Your task to perform on an android device: change your default location settings in chrome Image 0: 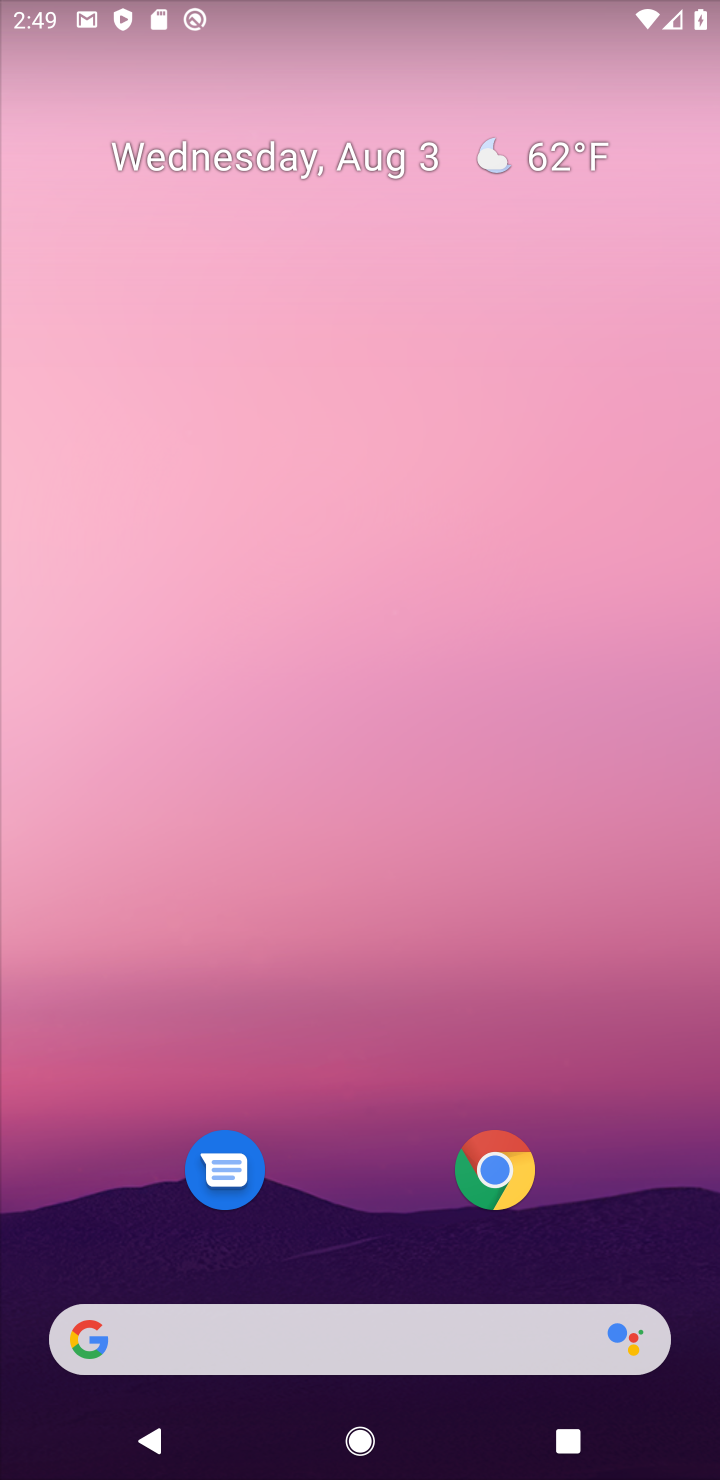
Step 0: click (483, 1174)
Your task to perform on an android device: change your default location settings in chrome Image 1: 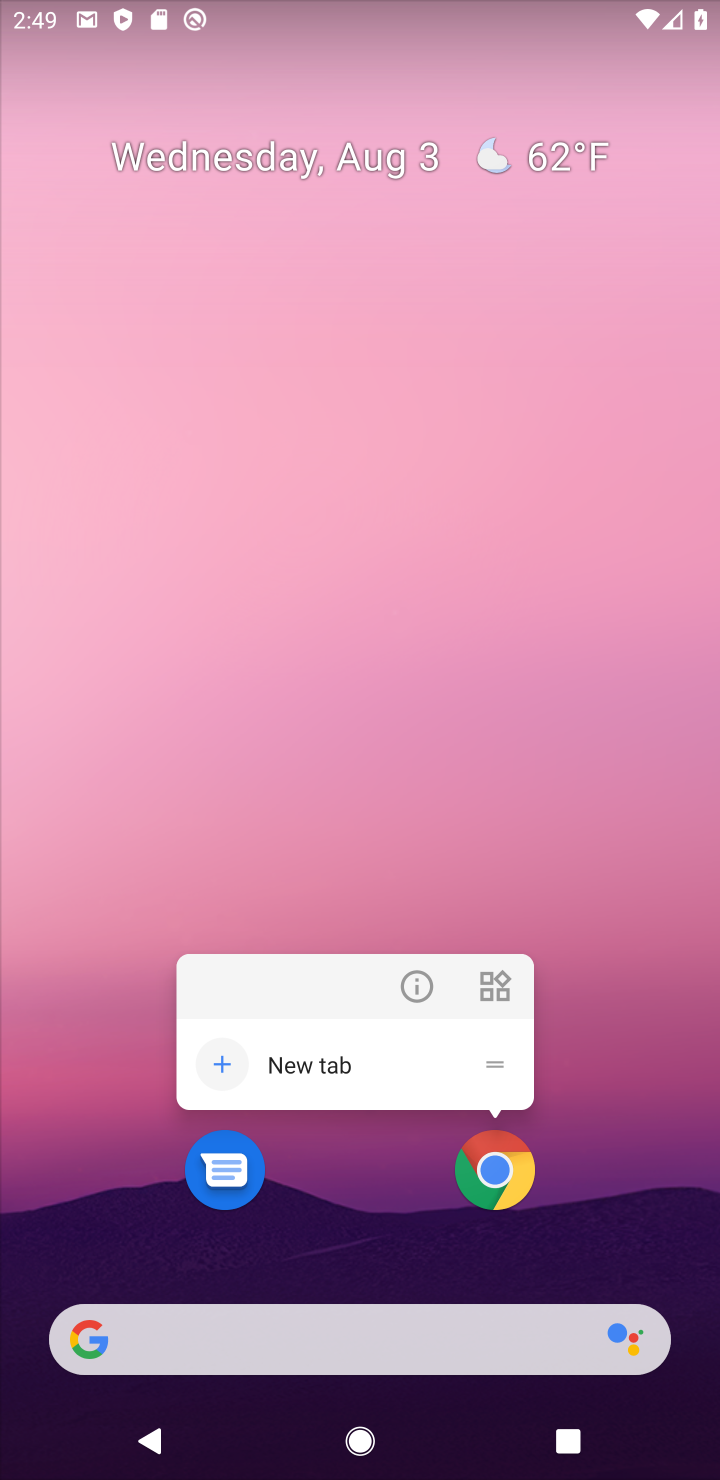
Step 1: click (483, 1174)
Your task to perform on an android device: change your default location settings in chrome Image 2: 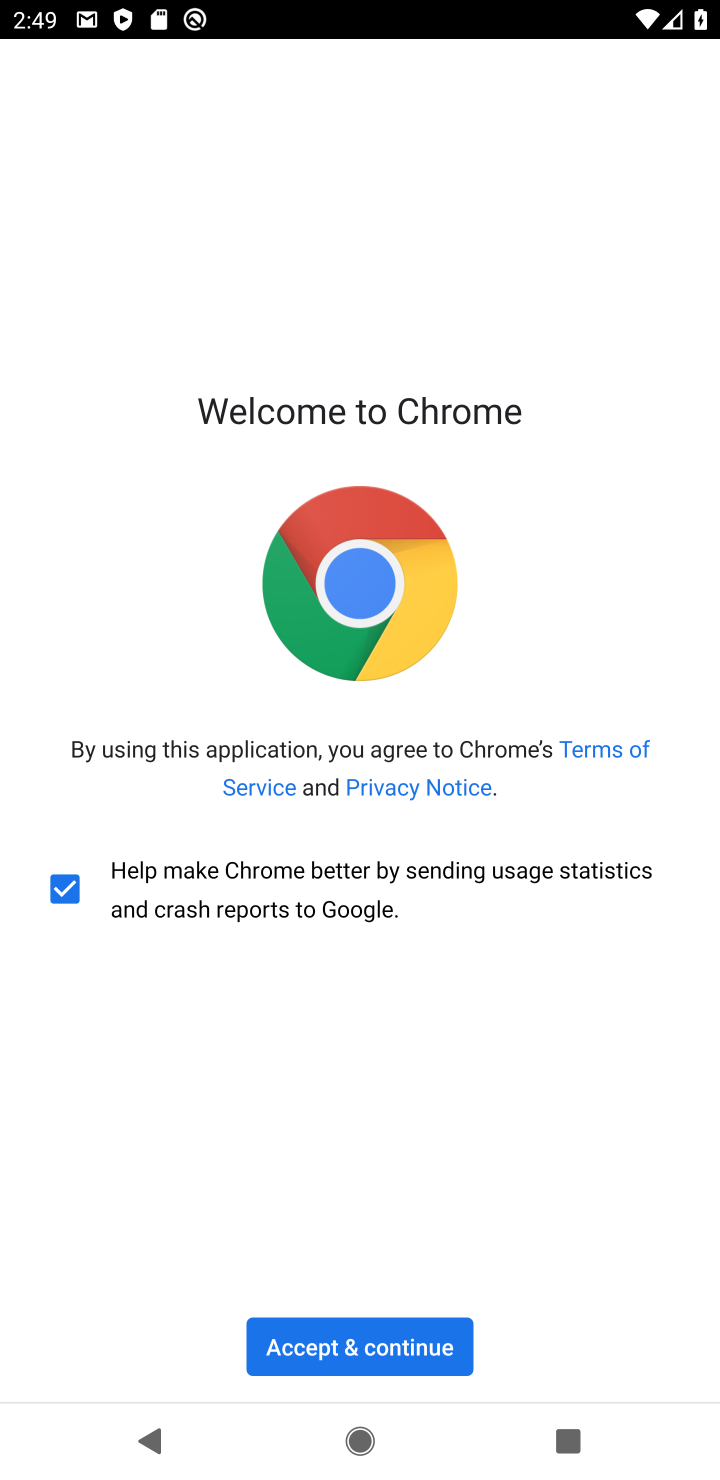
Step 2: click (327, 1359)
Your task to perform on an android device: change your default location settings in chrome Image 3: 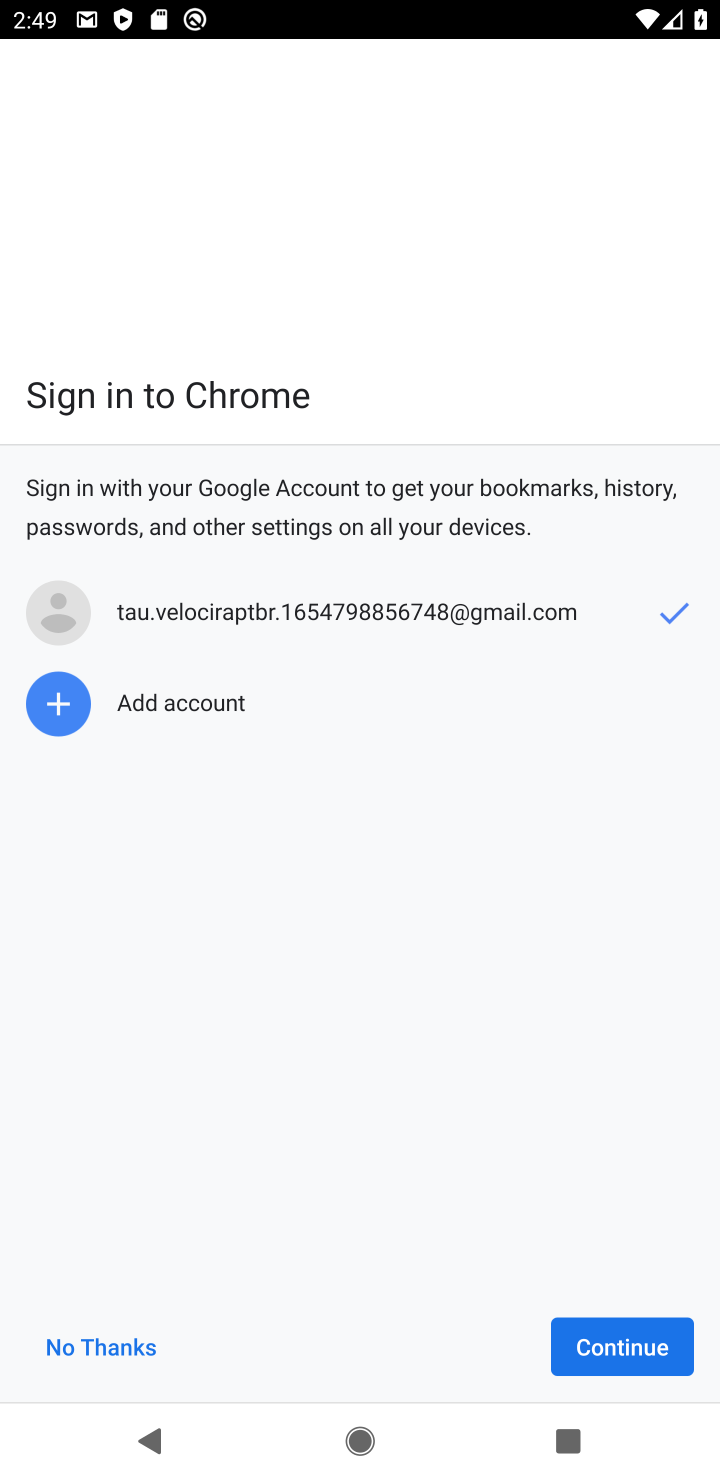
Step 3: click (601, 1357)
Your task to perform on an android device: change your default location settings in chrome Image 4: 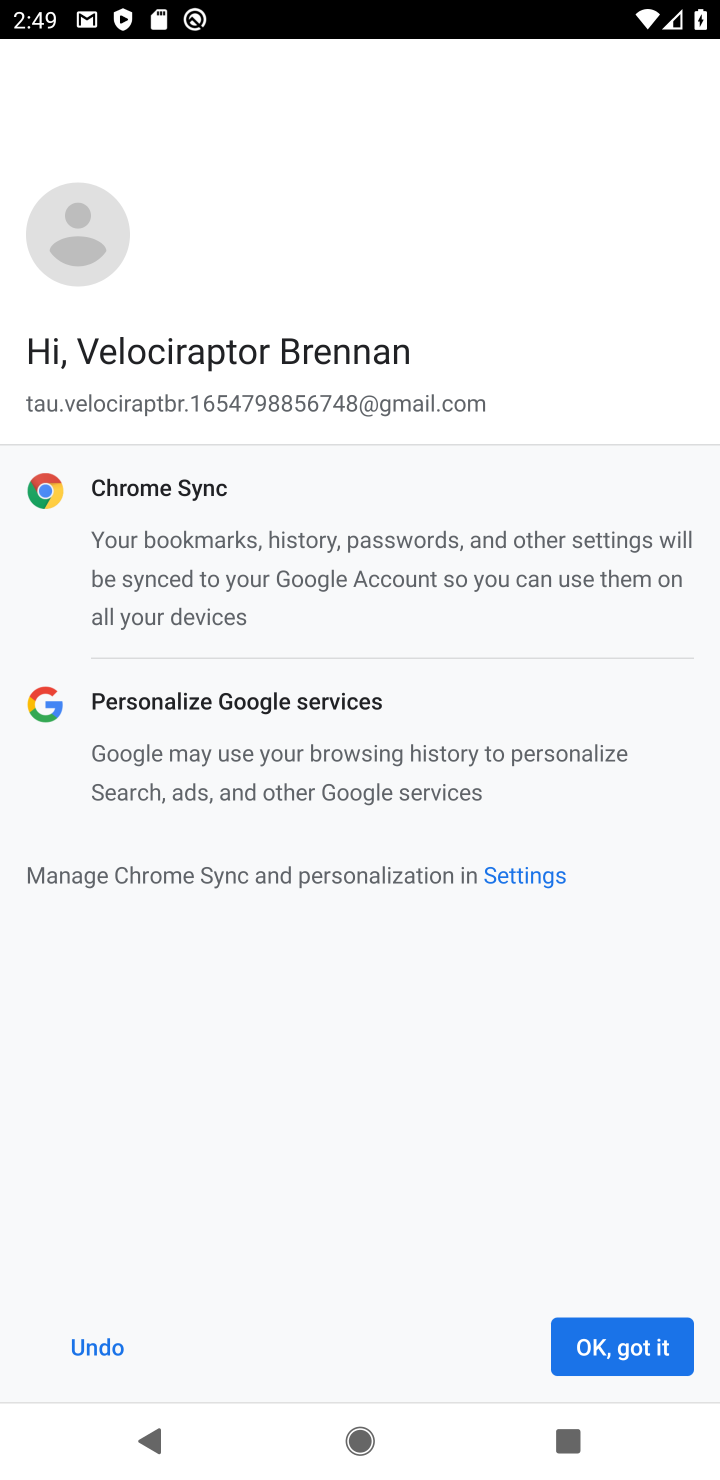
Step 4: click (601, 1357)
Your task to perform on an android device: change your default location settings in chrome Image 5: 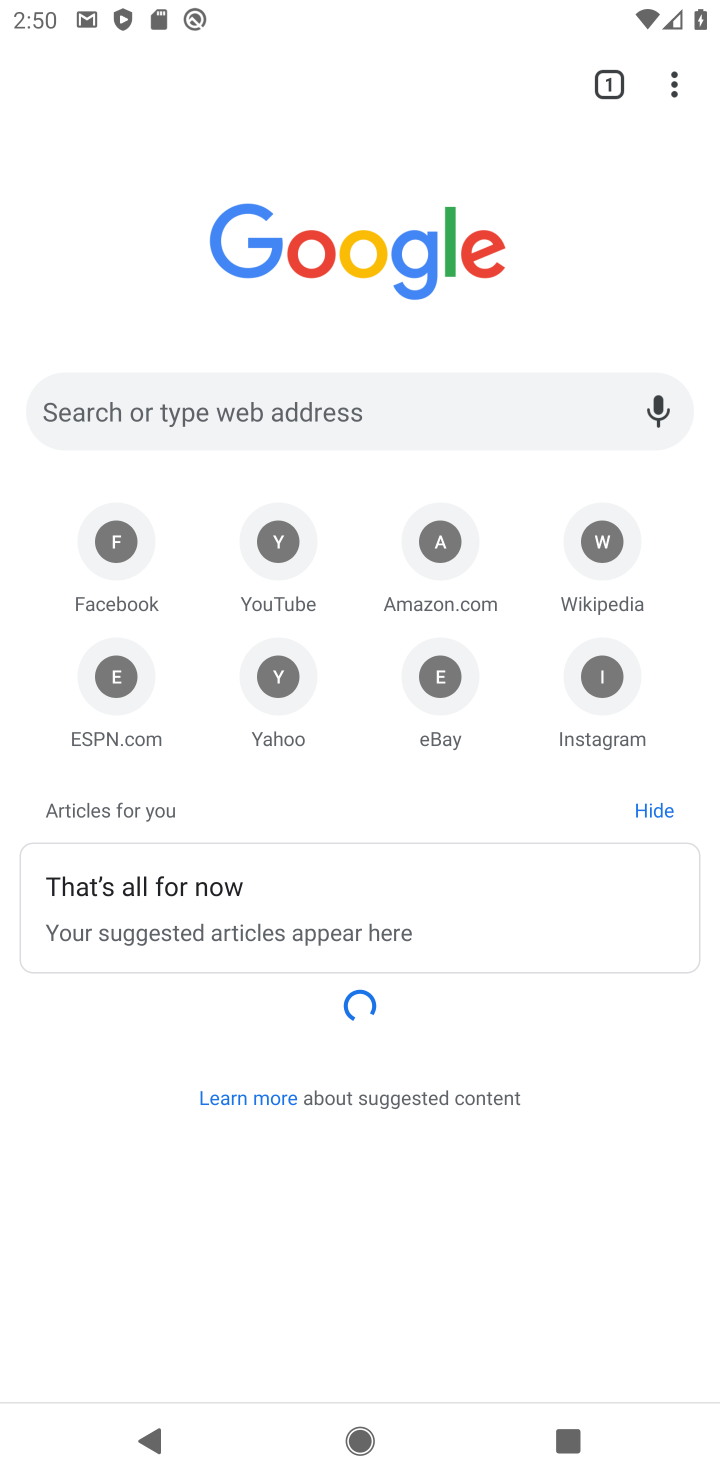
Step 5: click (670, 92)
Your task to perform on an android device: change your default location settings in chrome Image 6: 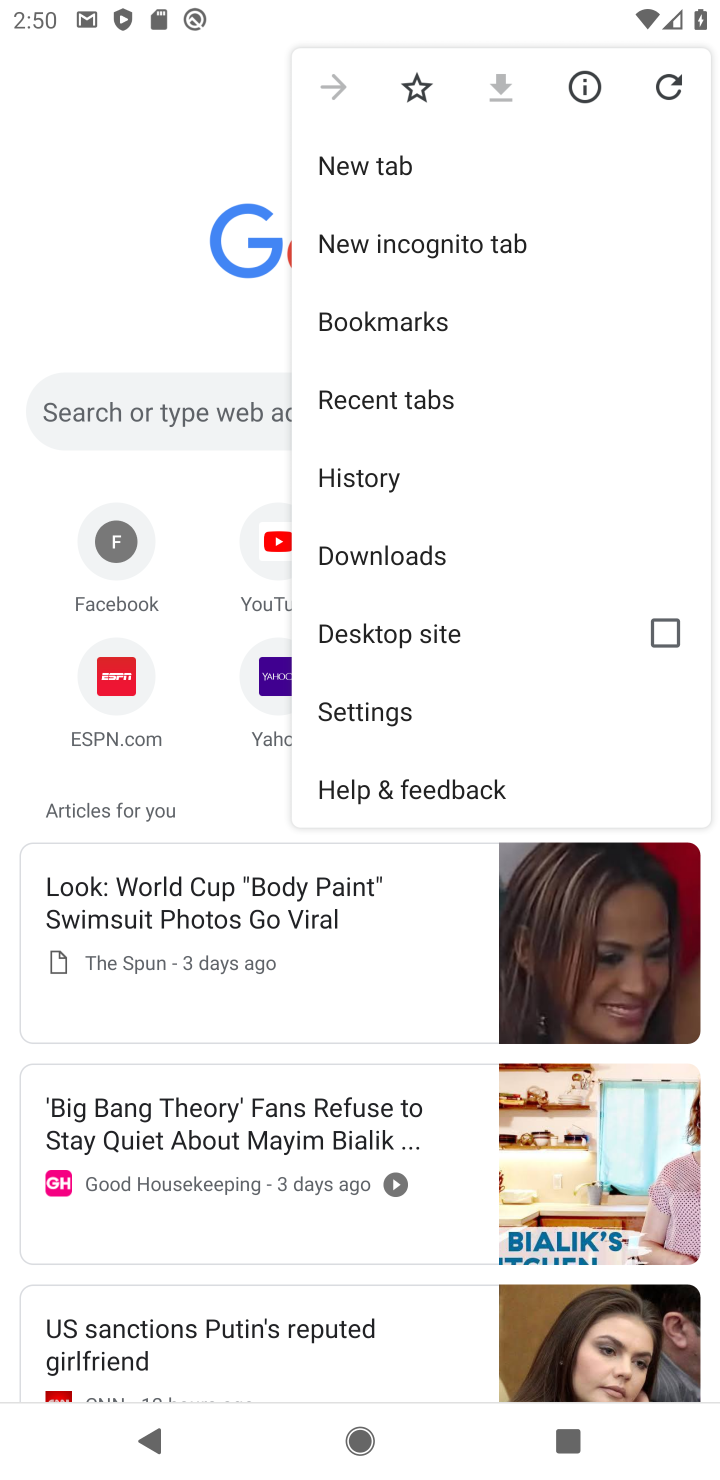
Step 6: click (355, 702)
Your task to perform on an android device: change your default location settings in chrome Image 7: 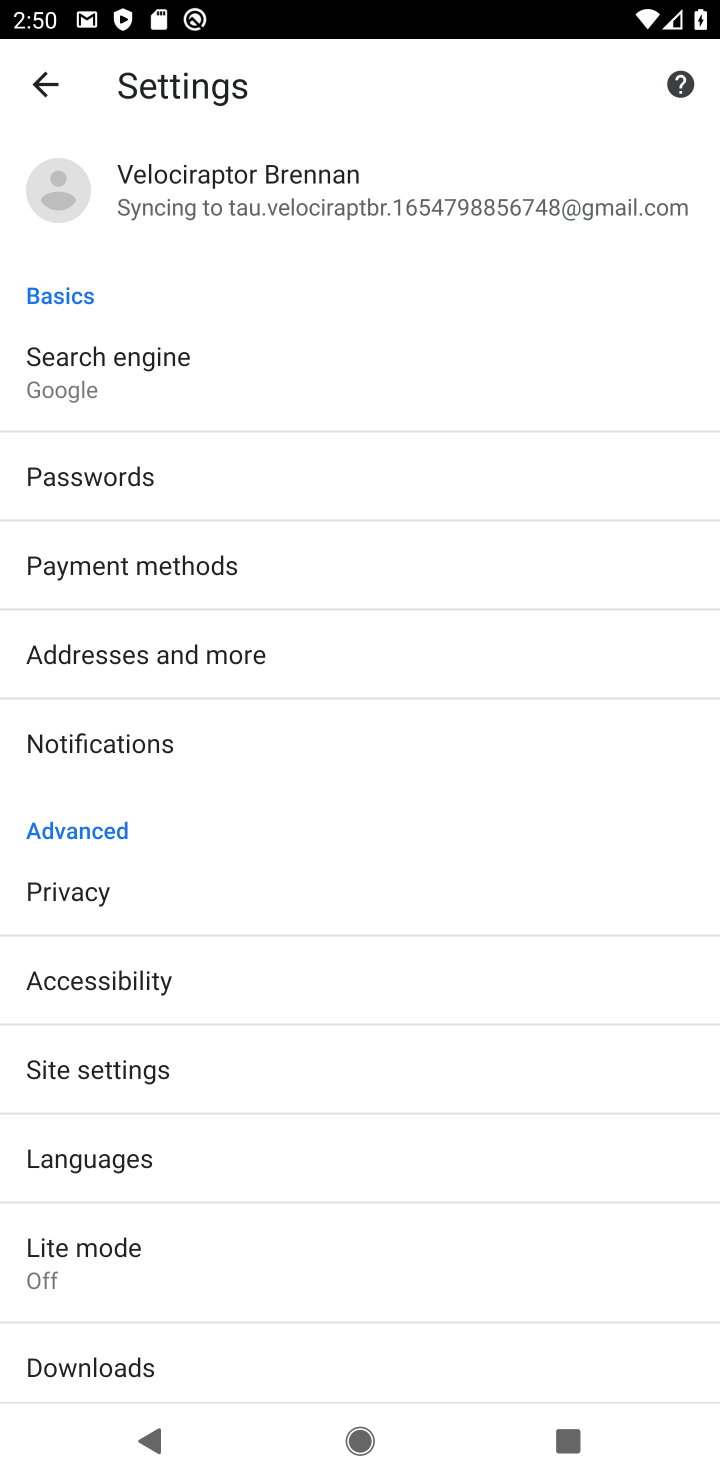
Step 7: click (161, 1076)
Your task to perform on an android device: change your default location settings in chrome Image 8: 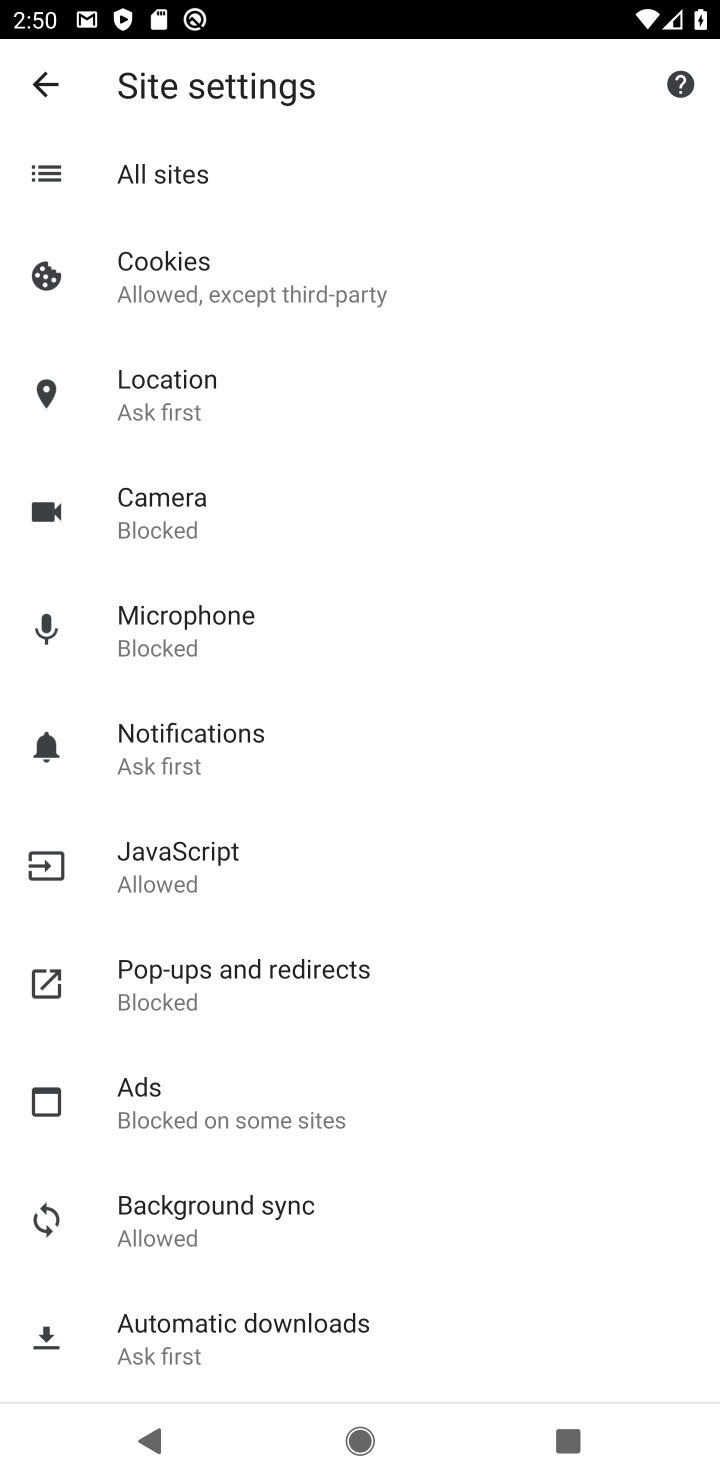
Step 8: click (188, 394)
Your task to perform on an android device: change your default location settings in chrome Image 9: 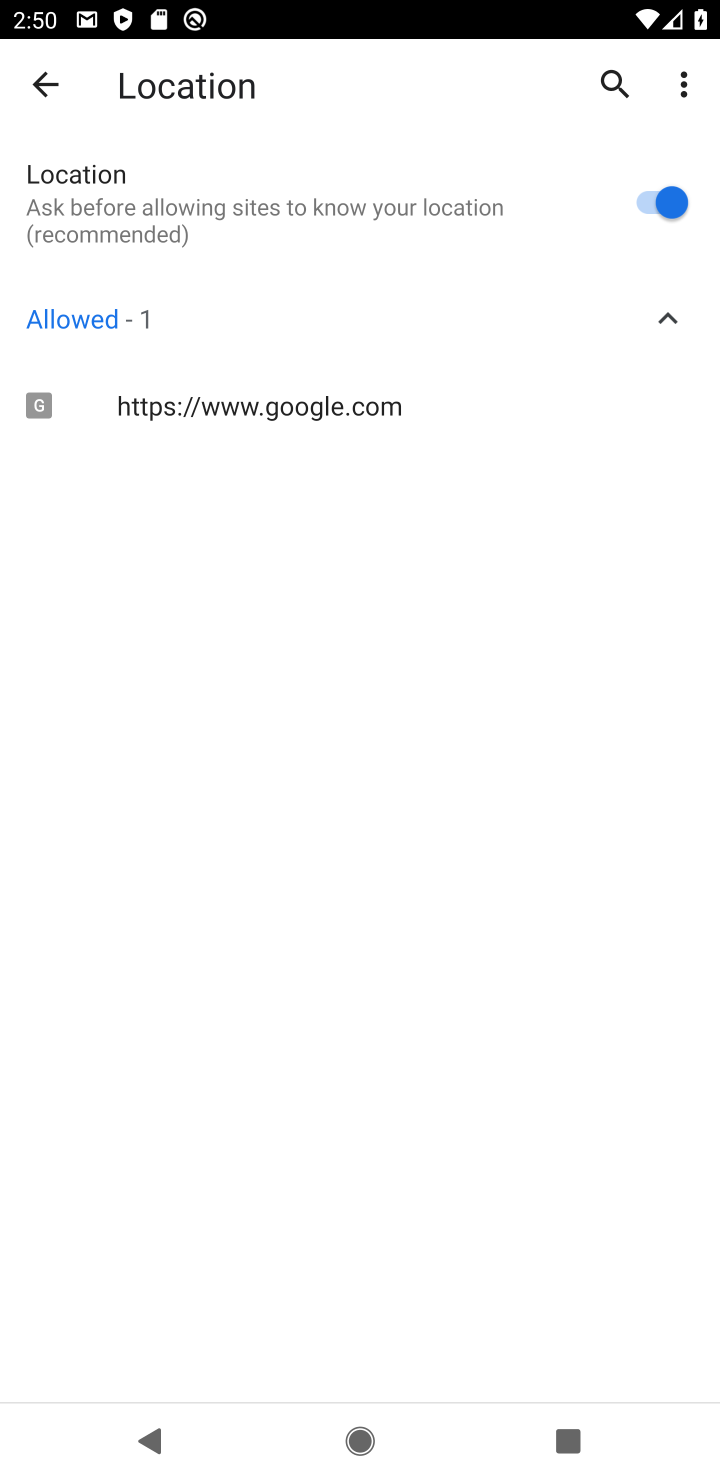
Step 9: click (632, 211)
Your task to perform on an android device: change your default location settings in chrome Image 10: 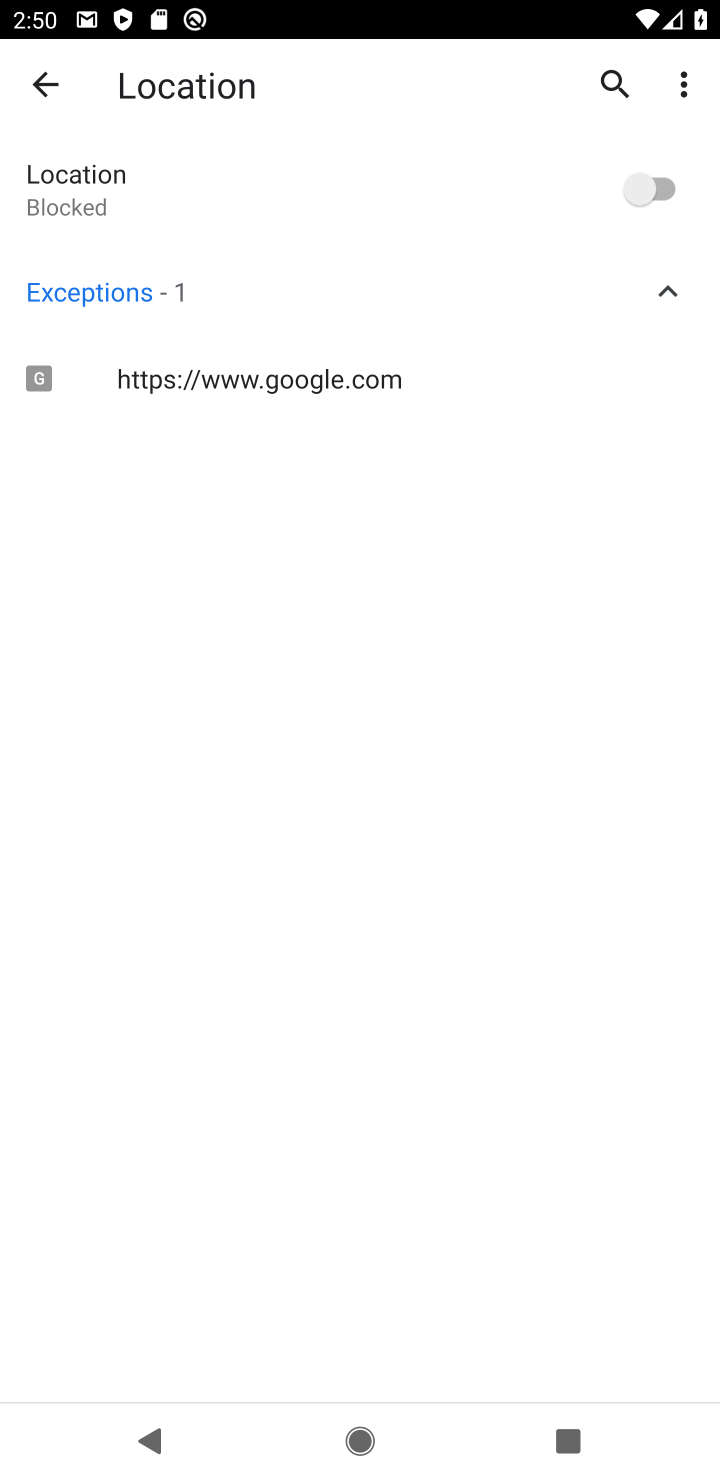
Step 10: task complete